Your task to perform on an android device: install app "Yahoo Mail" Image 0: 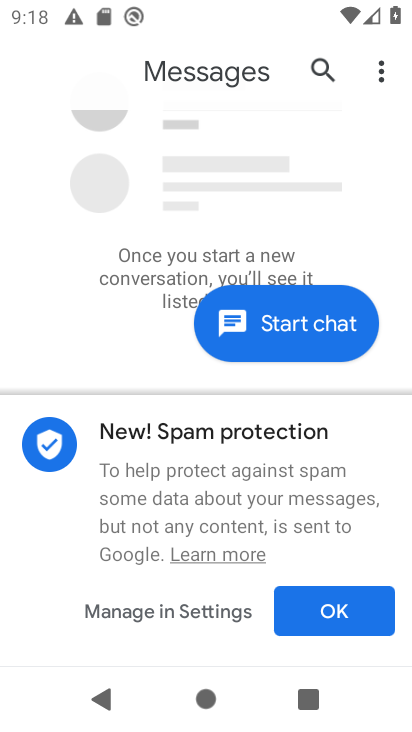
Step 0: press home button
Your task to perform on an android device: install app "Yahoo Mail" Image 1: 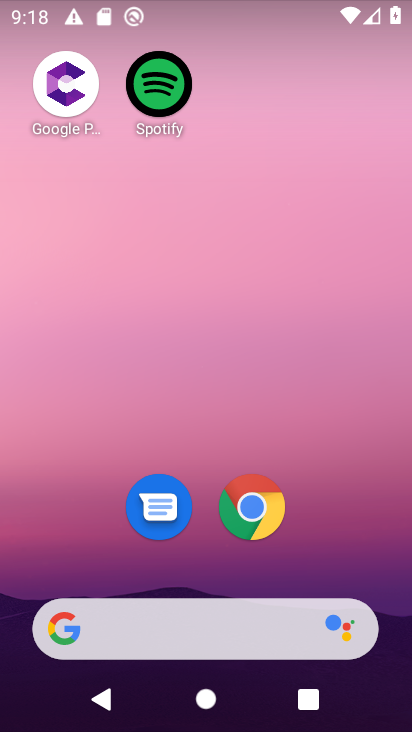
Step 1: drag from (399, 628) to (355, 83)
Your task to perform on an android device: install app "Yahoo Mail" Image 2: 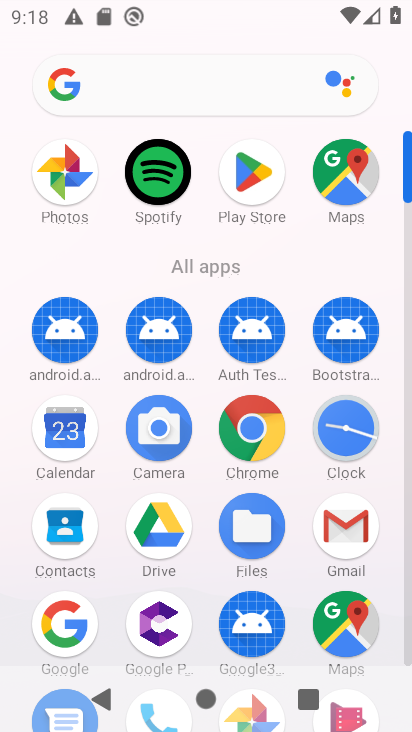
Step 2: click (407, 641)
Your task to perform on an android device: install app "Yahoo Mail" Image 3: 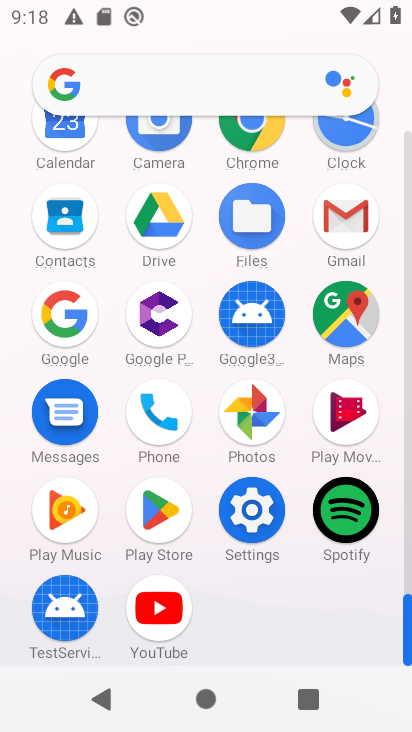
Step 3: click (160, 510)
Your task to perform on an android device: install app "Yahoo Mail" Image 4: 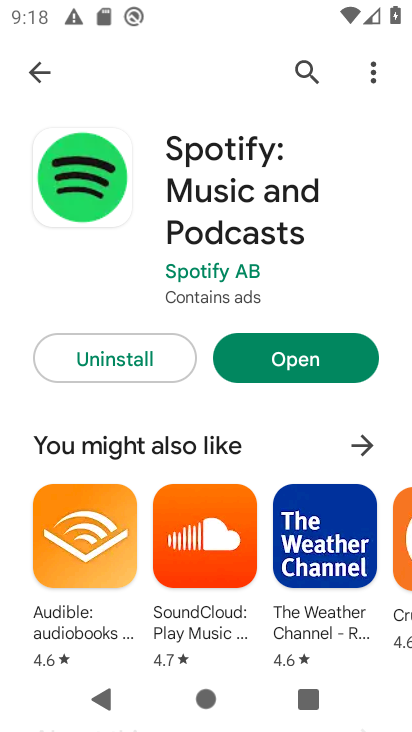
Step 4: click (298, 70)
Your task to perform on an android device: install app "Yahoo Mail" Image 5: 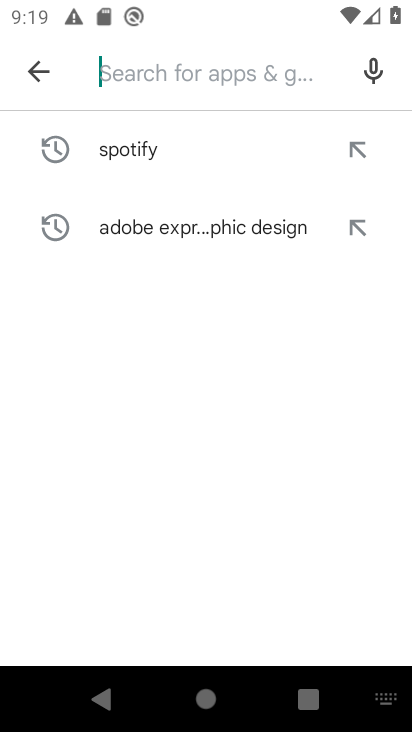
Step 5: type "Yahoo Mail"
Your task to perform on an android device: install app "Yahoo Mail" Image 6: 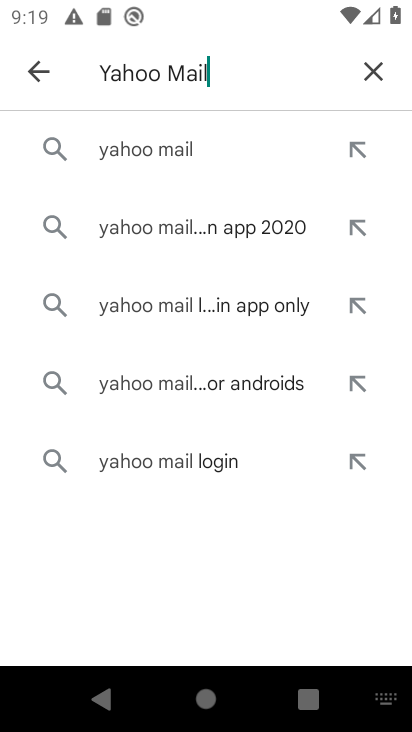
Step 6: click (129, 146)
Your task to perform on an android device: install app "Yahoo Mail" Image 7: 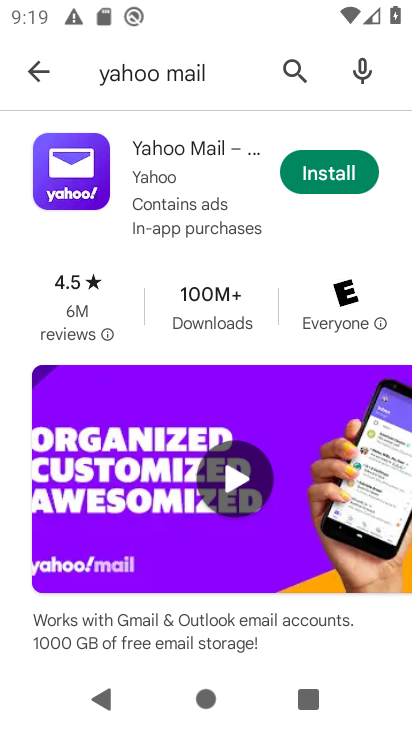
Step 7: click (158, 150)
Your task to perform on an android device: install app "Yahoo Mail" Image 8: 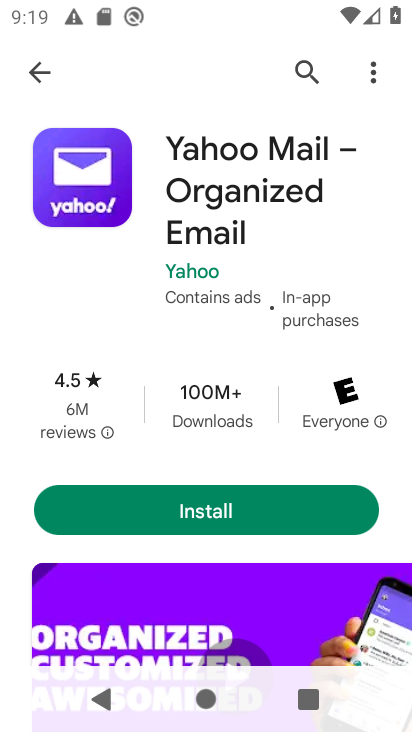
Step 8: click (212, 509)
Your task to perform on an android device: install app "Yahoo Mail" Image 9: 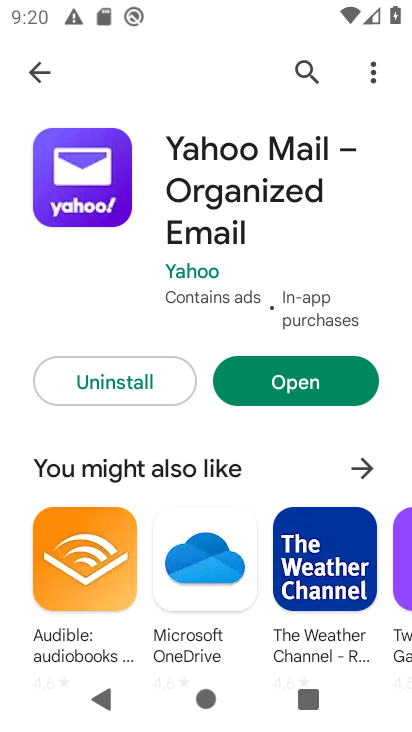
Step 9: task complete